Your task to perform on an android device: Open Yahoo.com Image 0: 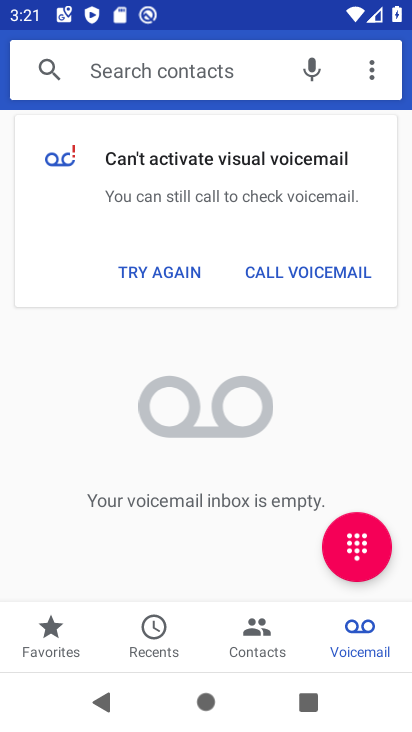
Step 0: press back button
Your task to perform on an android device: Open Yahoo.com Image 1: 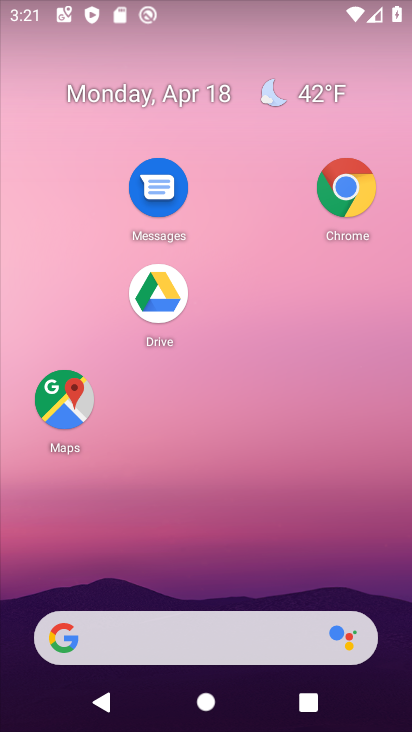
Step 1: click (347, 188)
Your task to perform on an android device: Open Yahoo.com Image 2: 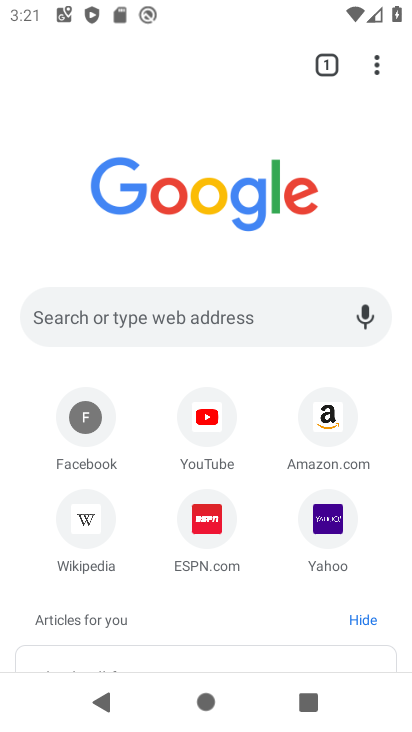
Step 2: click (209, 310)
Your task to perform on an android device: Open Yahoo.com Image 3: 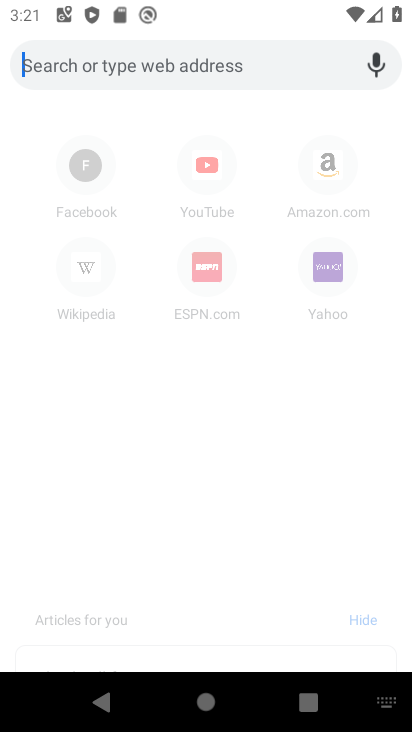
Step 3: click (157, 57)
Your task to perform on an android device: Open Yahoo.com Image 4: 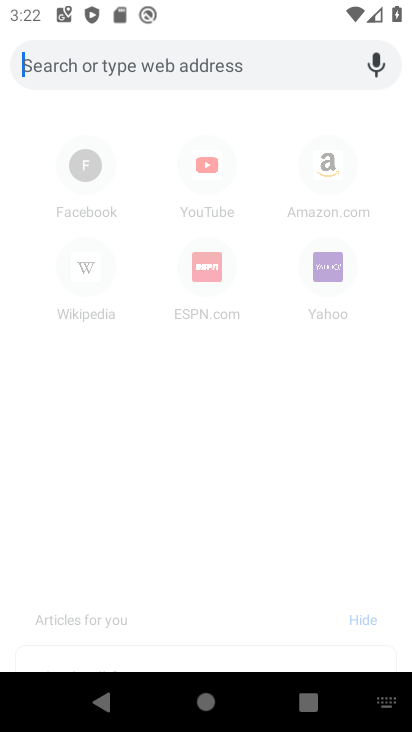
Step 4: type "Yahoo.com"
Your task to perform on an android device: Open Yahoo.com Image 5: 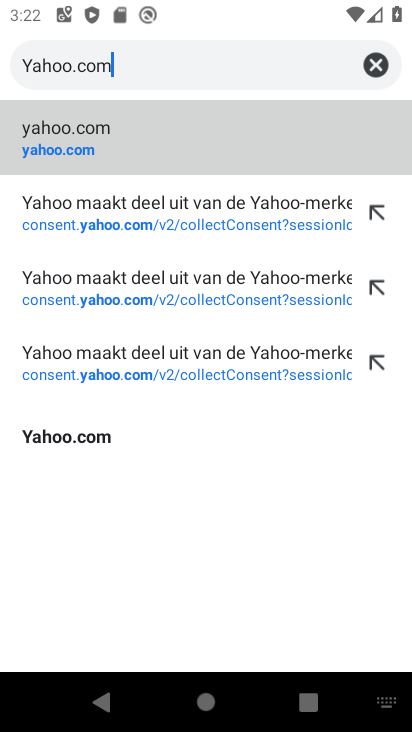
Step 5: type ""
Your task to perform on an android device: Open Yahoo.com Image 6: 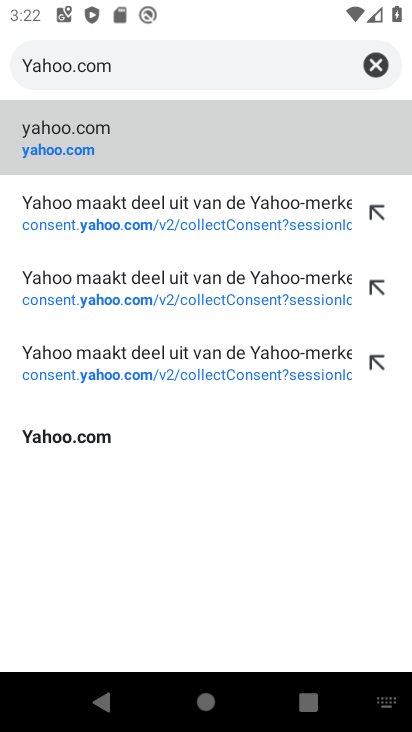
Step 6: click (155, 137)
Your task to perform on an android device: Open Yahoo.com Image 7: 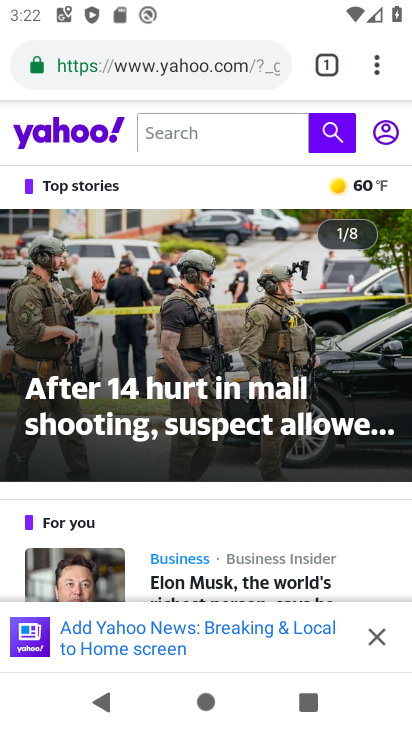
Step 7: task complete